Your task to perform on an android device: Open network settings Image 0: 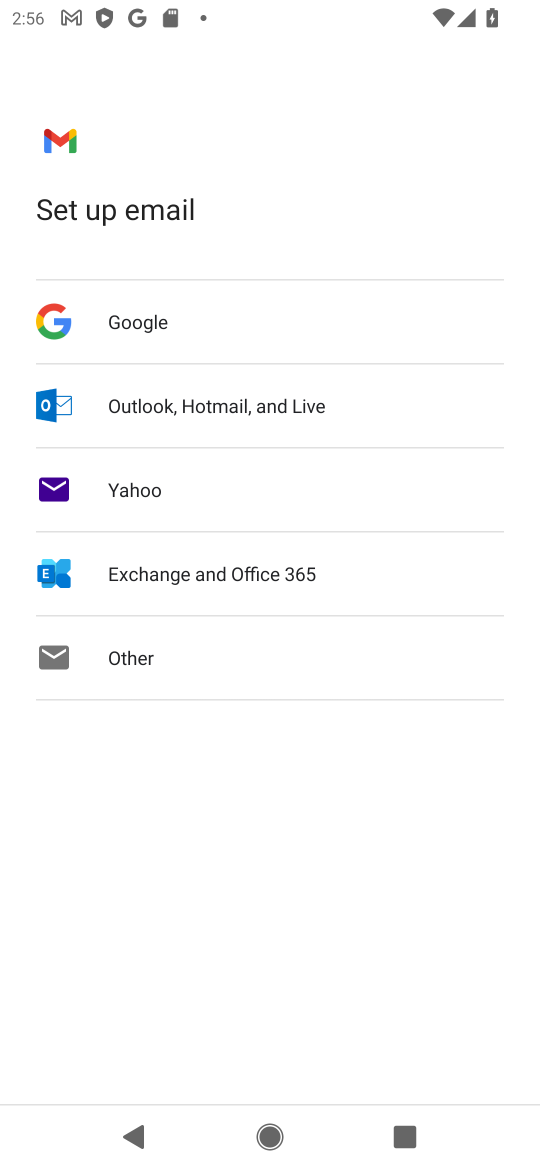
Step 0: press home button
Your task to perform on an android device: Open network settings Image 1: 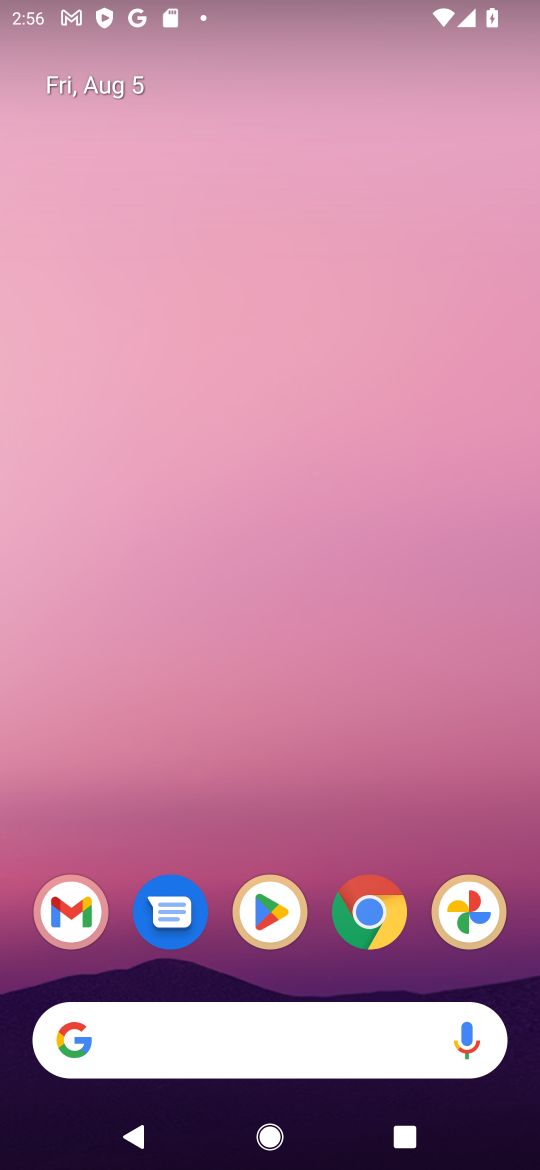
Step 1: drag from (229, 968) to (245, 71)
Your task to perform on an android device: Open network settings Image 2: 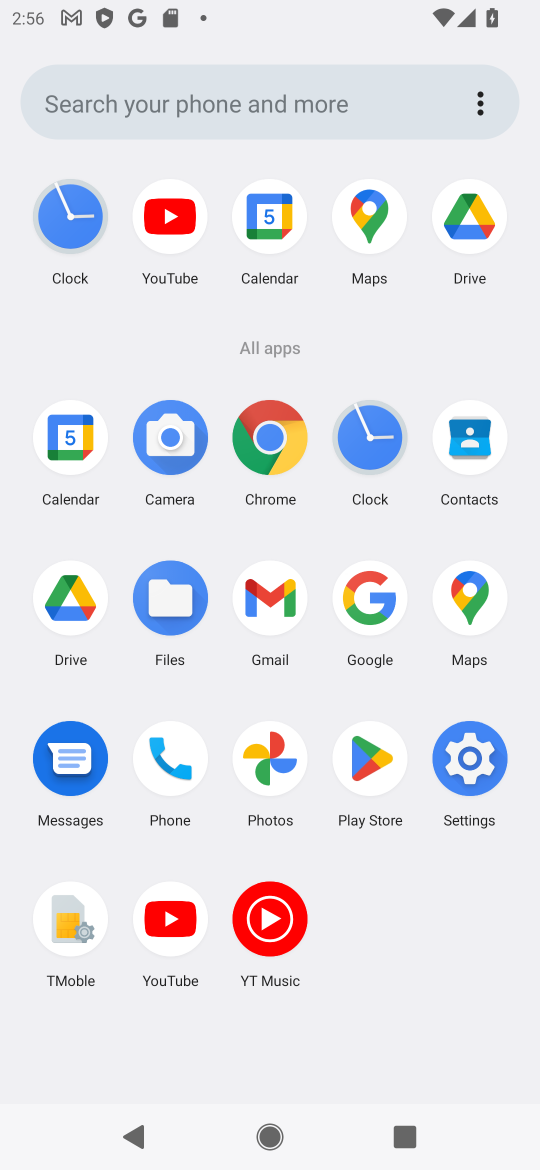
Step 2: click (472, 782)
Your task to perform on an android device: Open network settings Image 3: 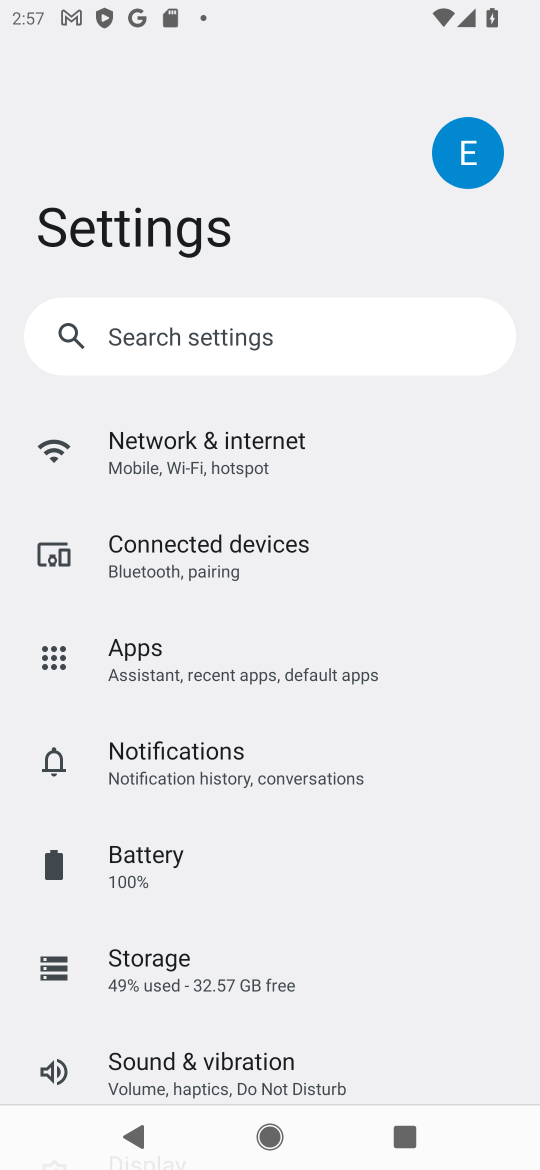
Step 3: click (262, 456)
Your task to perform on an android device: Open network settings Image 4: 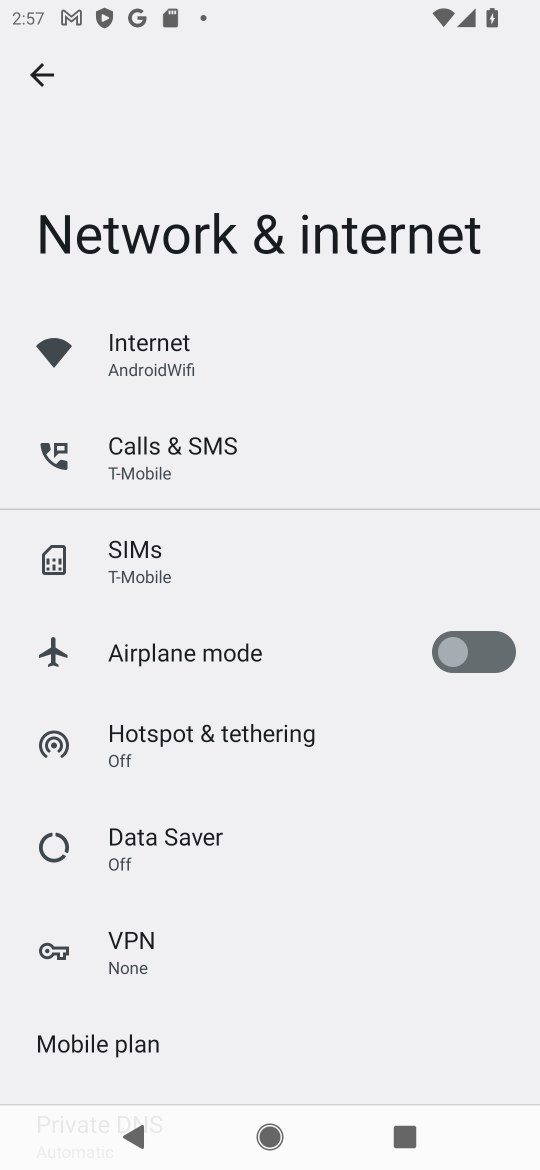
Step 4: task complete